Your task to perform on an android device: Open Google Chrome and open the bookmarks view Image 0: 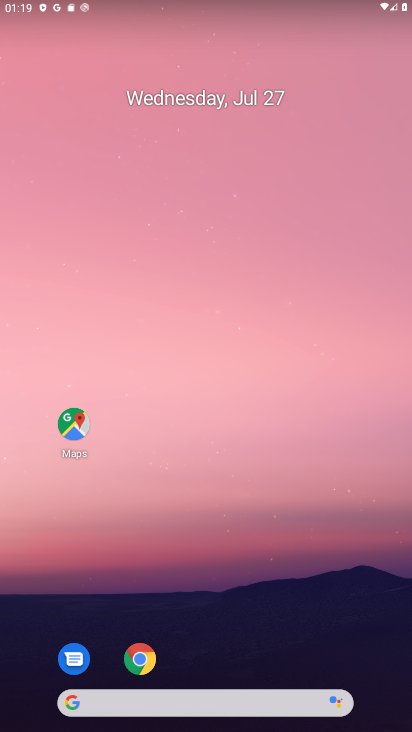
Step 0: click (146, 662)
Your task to perform on an android device: Open Google Chrome and open the bookmarks view Image 1: 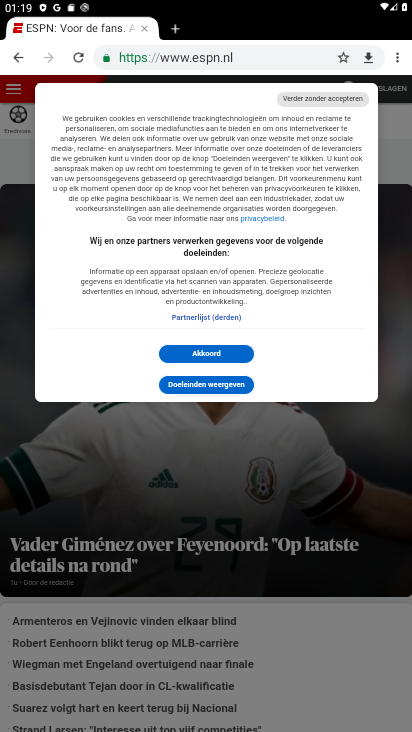
Step 1: click (400, 65)
Your task to perform on an android device: Open Google Chrome and open the bookmarks view Image 2: 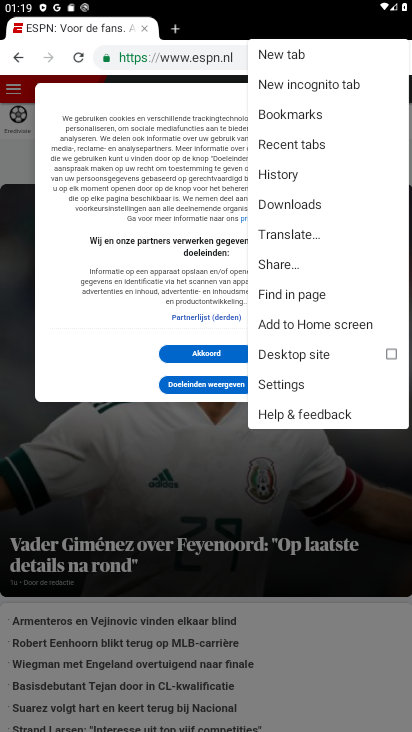
Step 2: click (323, 107)
Your task to perform on an android device: Open Google Chrome and open the bookmarks view Image 3: 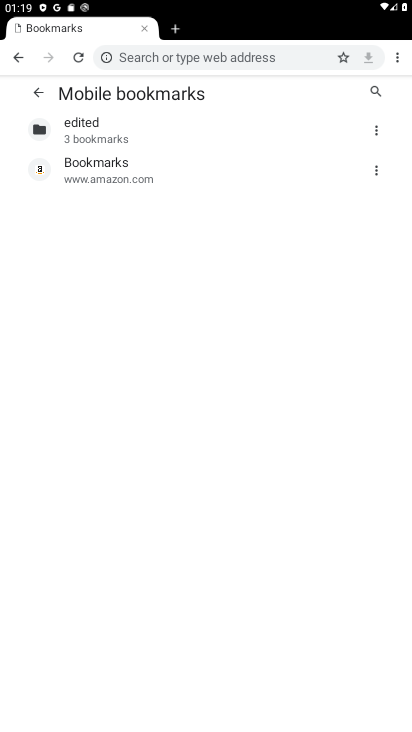
Step 3: click (120, 136)
Your task to perform on an android device: Open Google Chrome and open the bookmarks view Image 4: 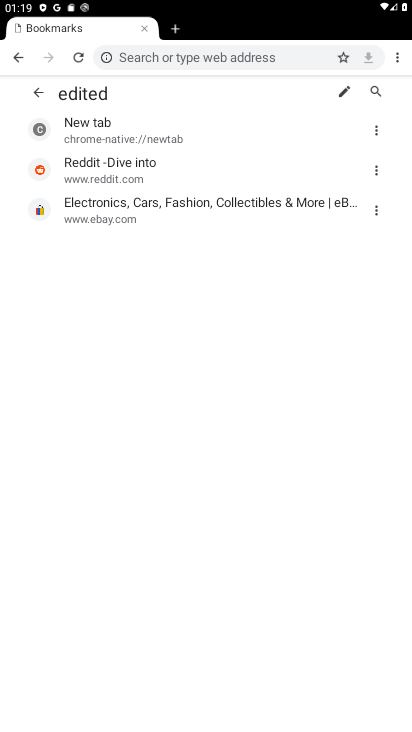
Step 4: task complete